Your task to perform on an android device: turn on javascript in the chrome app Image 0: 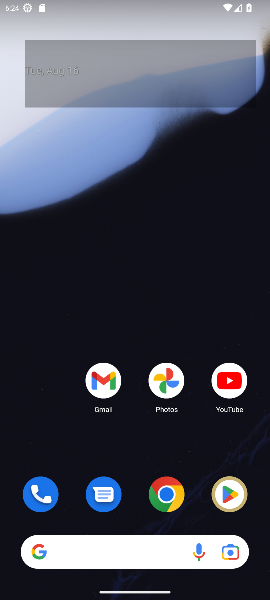
Step 0: click (168, 499)
Your task to perform on an android device: turn on javascript in the chrome app Image 1: 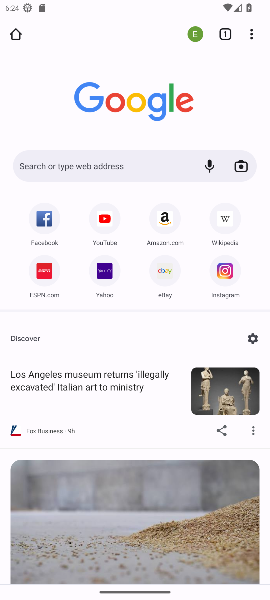
Step 1: task complete